Your task to perform on an android device: check android version Image 0: 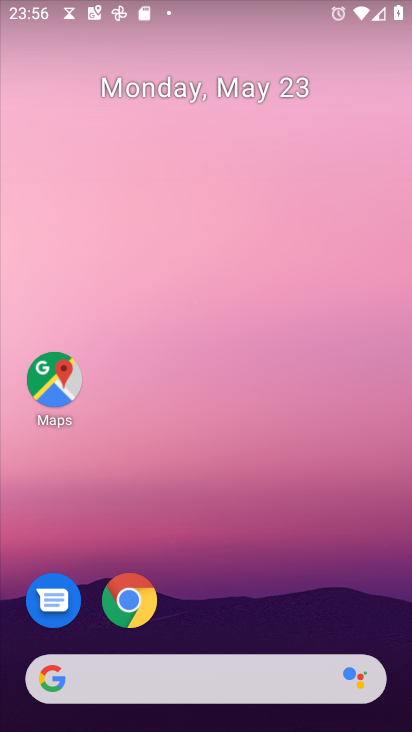
Step 0: drag from (253, 725) to (243, 85)
Your task to perform on an android device: check android version Image 1: 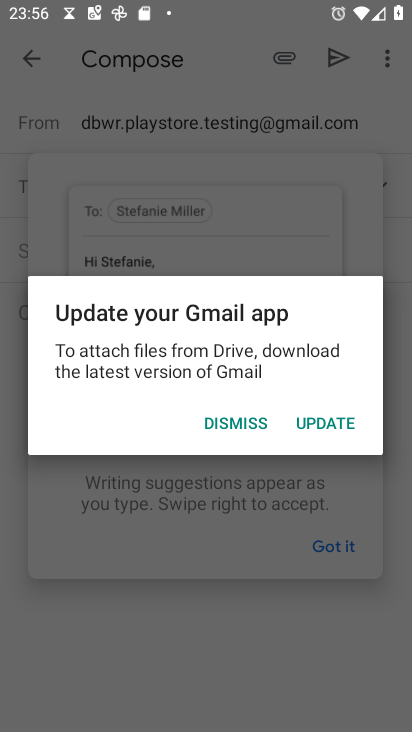
Step 1: press home button
Your task to perform on an android device: check android version Image 2: 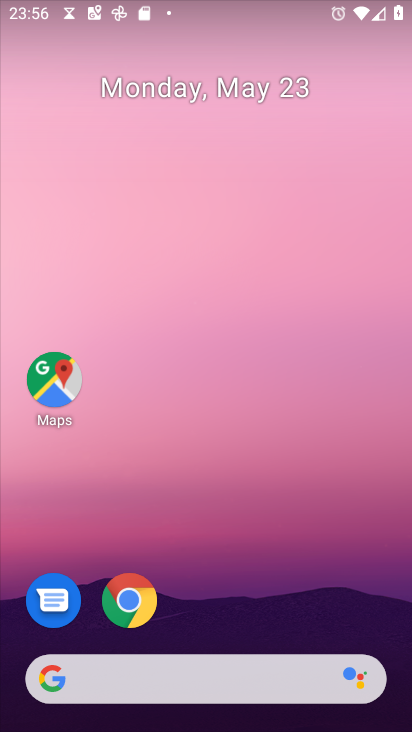
Step 2: drag from (215, 730) to (198, 126)
Your task to perform on an android device: check android version Image 3: 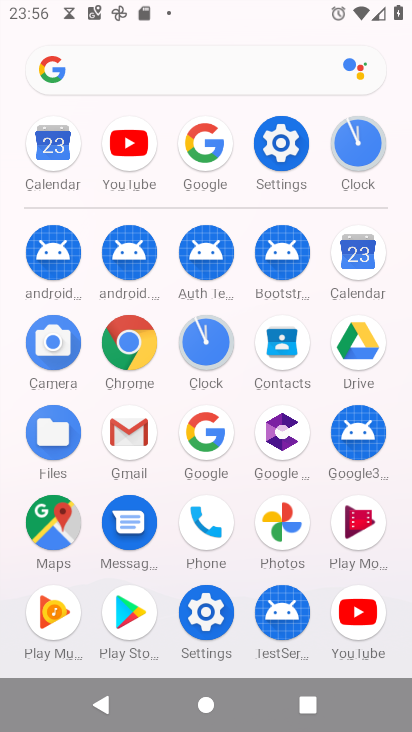
Step 3: click (281, 140)
Your task to perform on an android device: check android version Image 4: 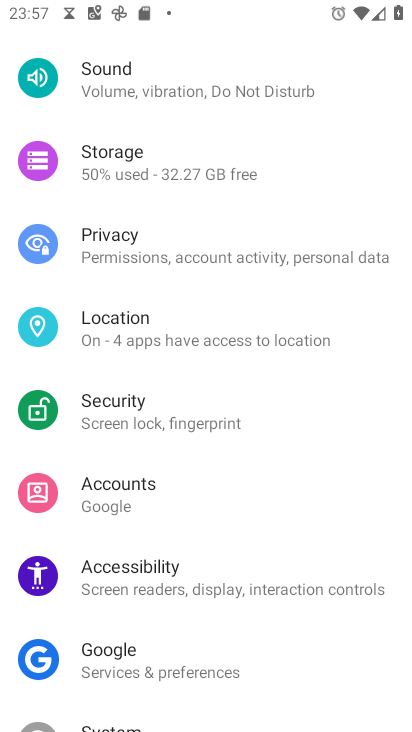
Step 4: task complete